Your task to perform on an android device: open device folders in google photos Image 0: 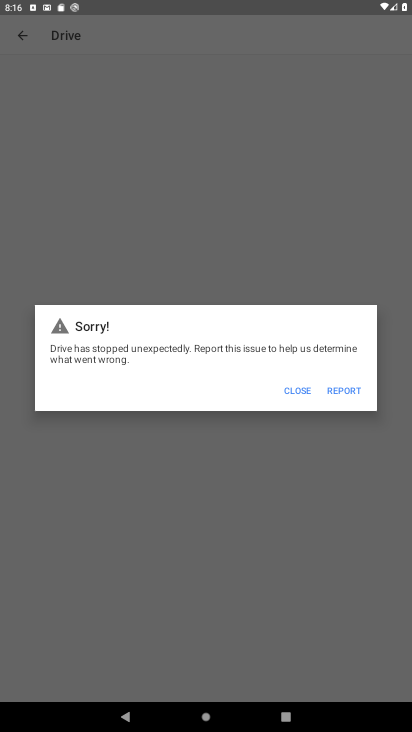
Step 0: click (346, 357)
Your task to perform on an android device: open device folders in google photos Image 1: 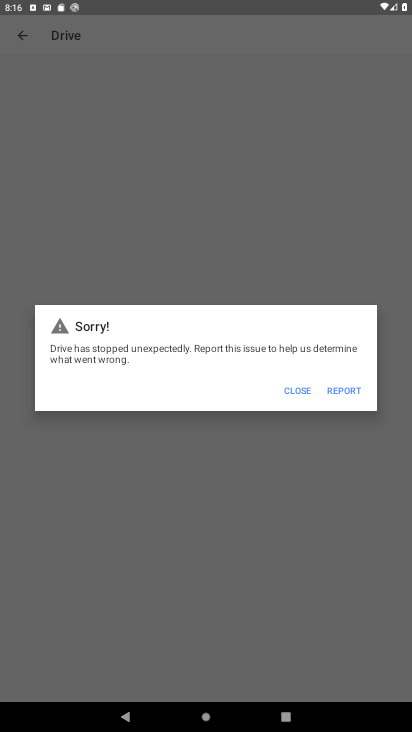
Step 1: press home button
Your task to perform on an android device: open device folders in google photos Image 2: 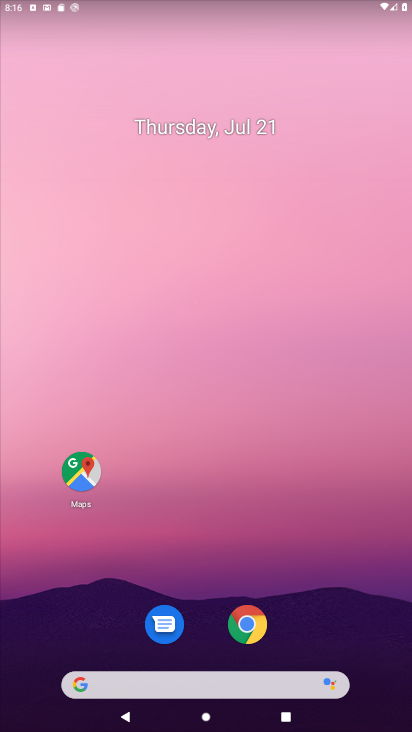
Step 2: drag from (85, 544) to (282, 163)
Your task to perform on an android device: open device folders in google photos Image 3: 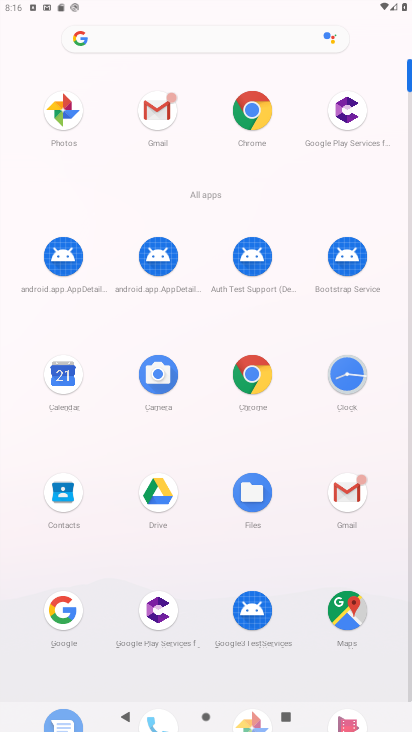
Step 3: drag from (116, 622) to (342, 266)
Your task to perform on an android device: open device folders in google photos Image 4: 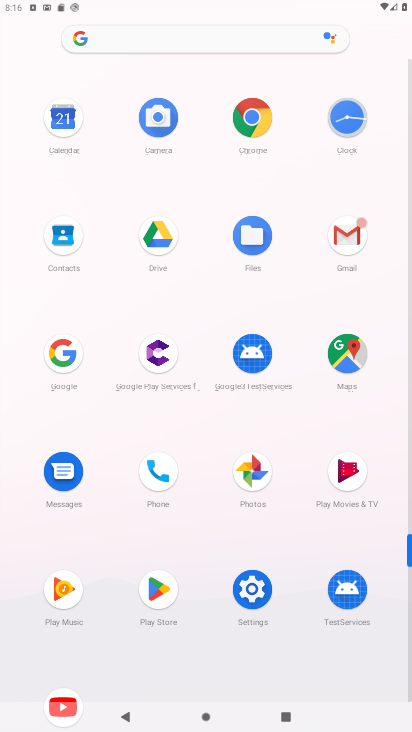
Step 4: click (238, 484)
Your task to perform on an android device: open device folders in google photos Image 5: 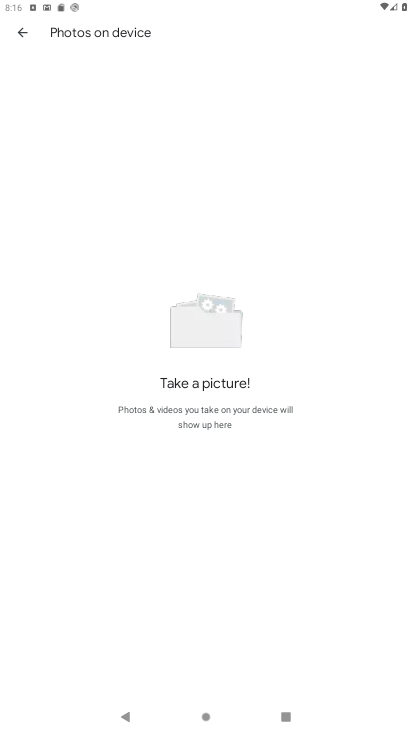
Step 5: click (19, 31)
Your task to perform on an android device: open device folders in google photos Image 6: 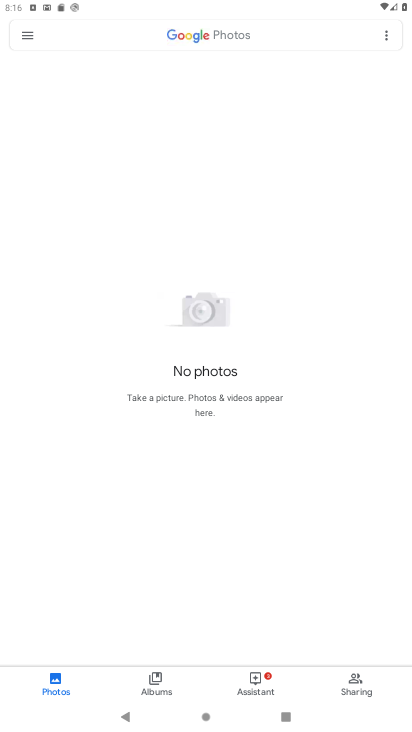
Step 6: click (19, 30)
Your task to perform on an android device: open device folders in google photos Image 7: 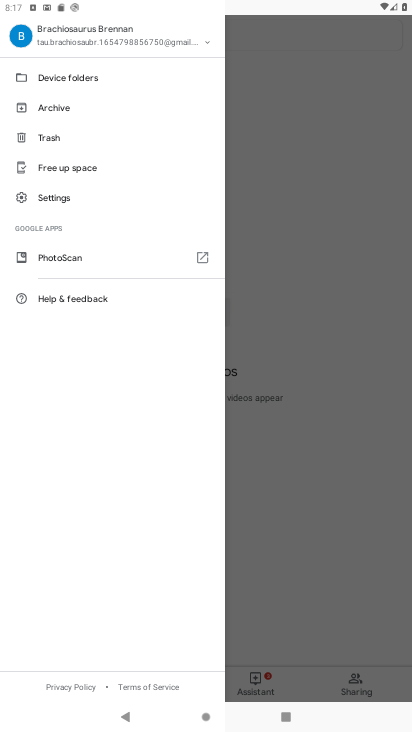
Step 7: task complete